Your task to perform on an android device: turn on data saver in the chrome app Image 0: 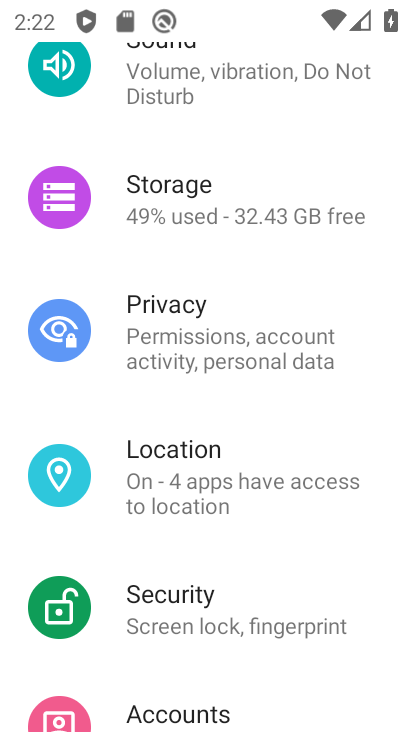
Step 0: drag from (257, 613) to (133, 209)
Your task to perform on an android device: turn on data saver in the chrome app Image 1: 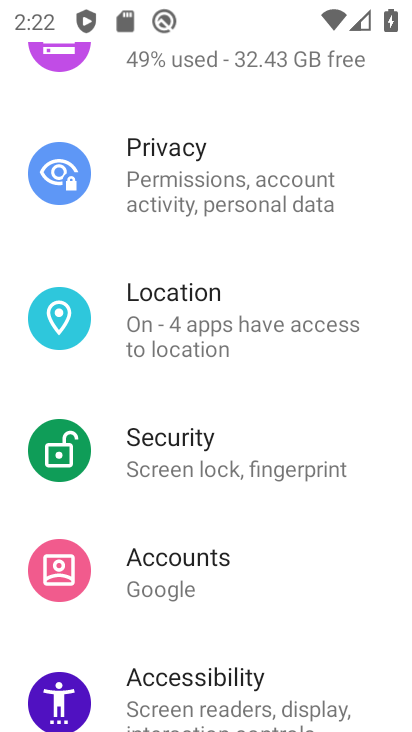
Step 1: drag from (228, 686) to (210, 185)
Your task to perform on an android device: turn on data saver in the chrome app Image 2: 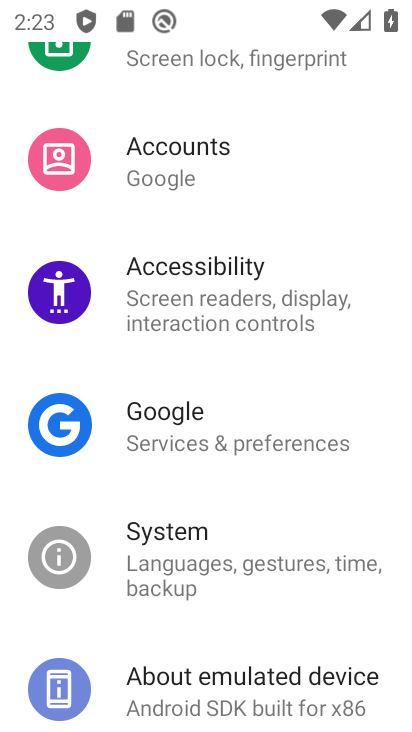
Step 2: drag from (248, 641) to (172, 152)
Your task to perform on an android device: turn on data saver in the chrome app Image 3: 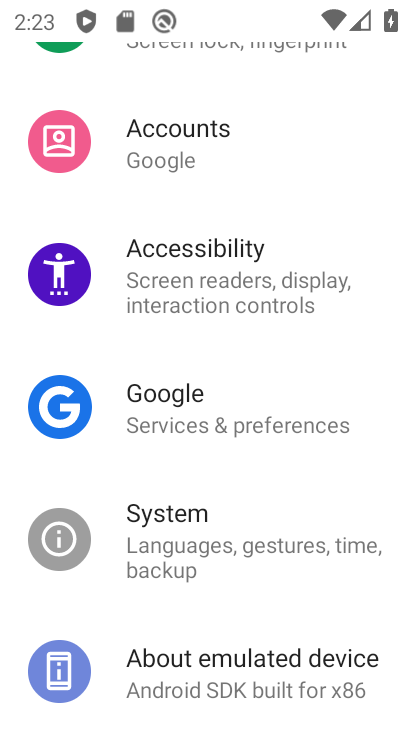
Step 3: drag from (320, 88) to (190, 699)
Your task to perform on an android device: turn on data saver in the chrome app Image 4: 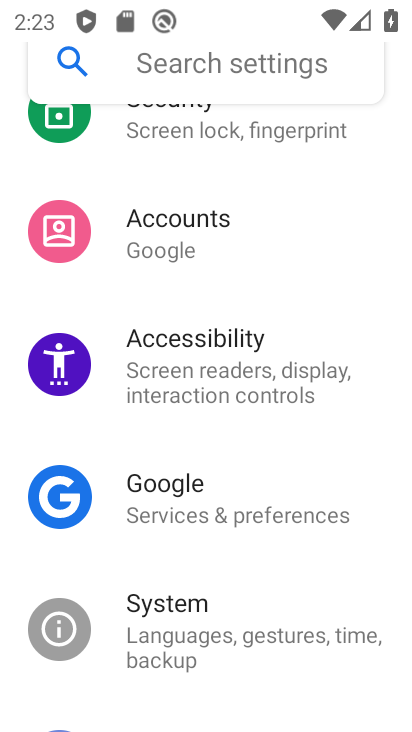
Step 4: drag from (303, 191) to (281, 691)
Your task to perform on an android device: turn on data saver in the chrome app Image 5: 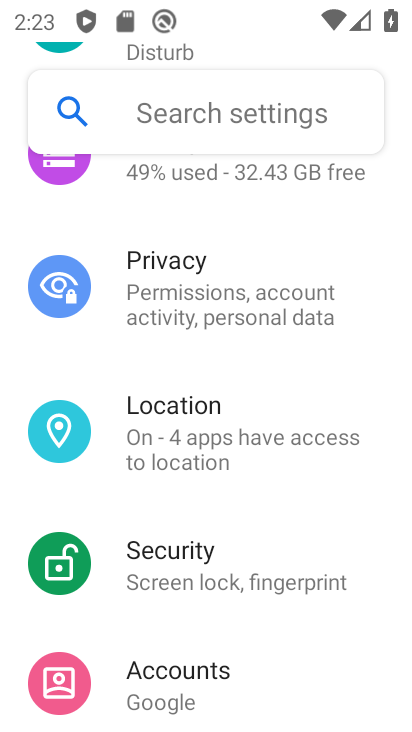
Step 5: drag from (334, 193) to (268, 686)
Your task to perform on an android device: turn on data saver in the chrome app Image 6: 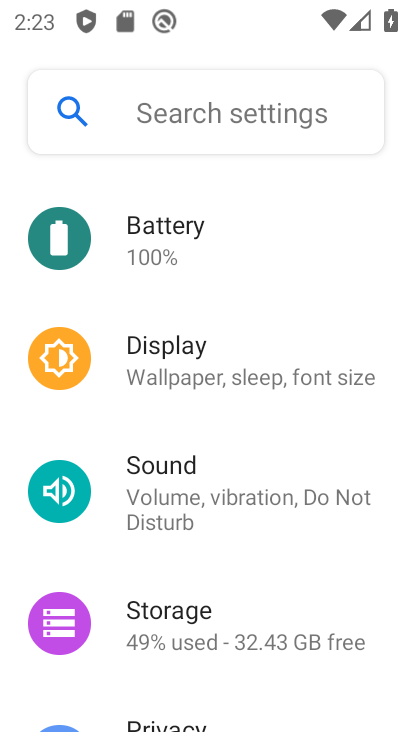
Step 6: drag from (345, 244) to (307, 670)
Your task to perform on an android device: turn on data saver in the chrome app Image 7: 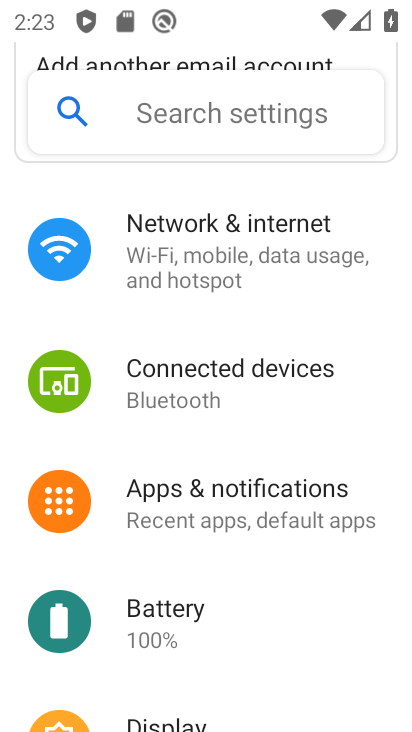
Step 7: press home button
Your task to perform on an android device: turn on data saver in the chrome app Image 8: 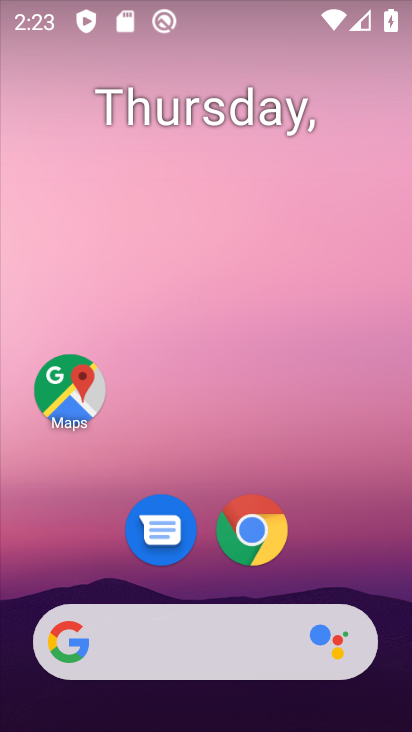
Step 8: drag from (173, 720) to (288, 37)
Your task to perform on an android device: turn on data saver in the chrome app Image 9: 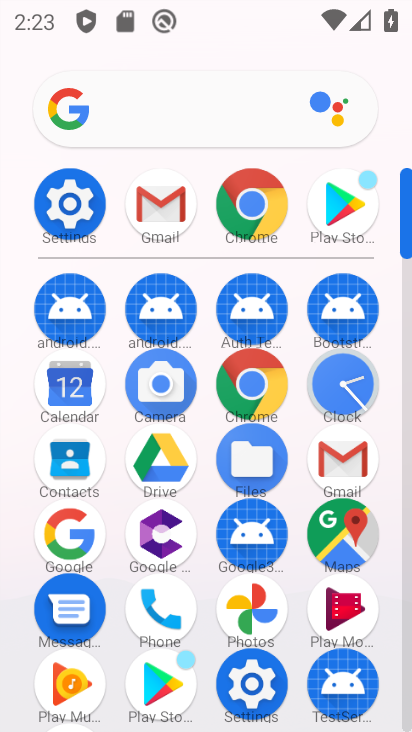
Step 9: click (260, 195)
Your task to perform on an android device: turn on data saver in the chrome app Image 10: 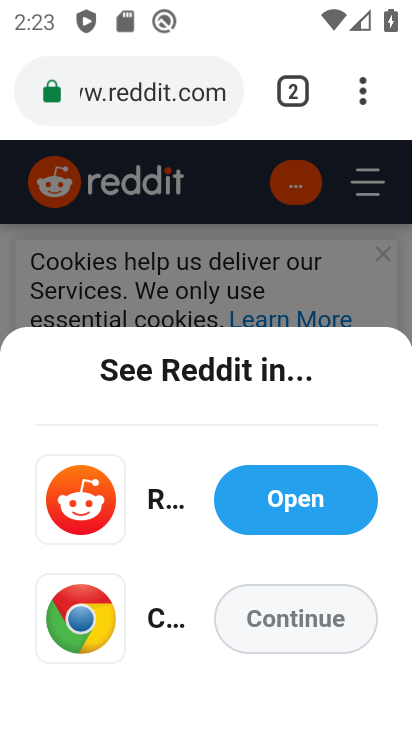
Step 10: click (369, 90)
Your task to perform on an android device: turn on data saver in the chrome app Image 11: 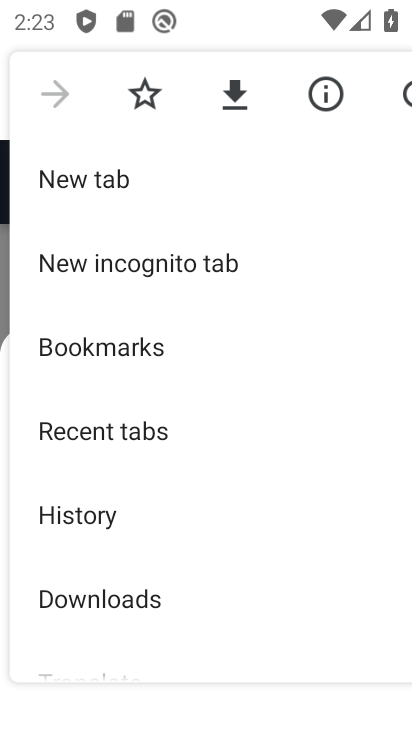
Step 11: drag from (204, 601) to (20, 101)
Your task to perform on an android device: turn on data saver in the chrome app Image 12: 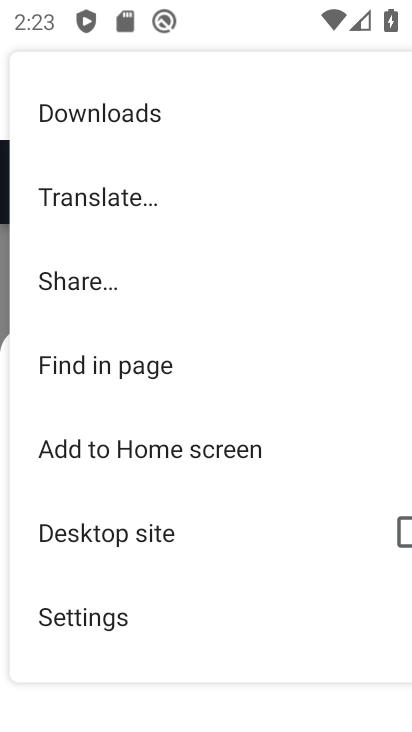
Step 12: click (111, 620)
Your task to perform on an android device: turn on data saver in the chrome app Image 13: 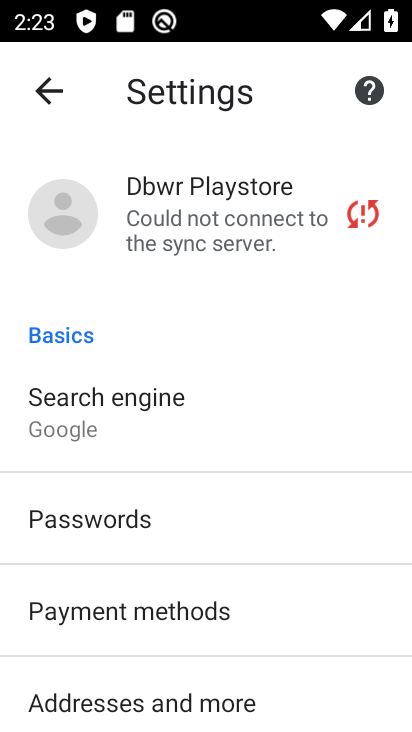
Step 13: drag from (287, 633) to (259, 51)
Your task to perform on an android device: turn on data saver in the chrome app Image 14: 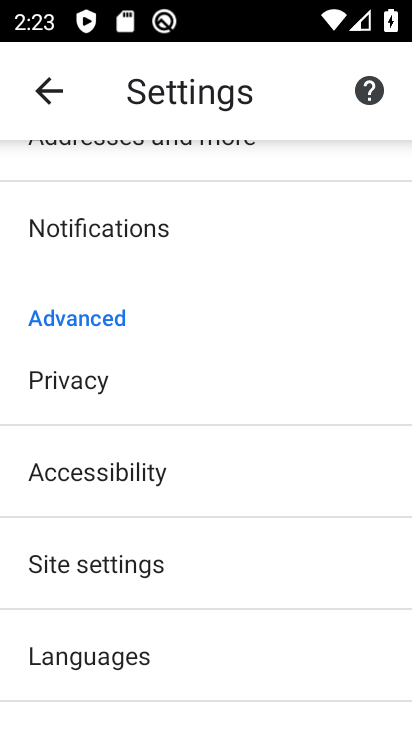
Step 14: drag from (254, 648) to (221, 16)
Your task to perform on an android device: turn on data saver in the chrome app Image 15: 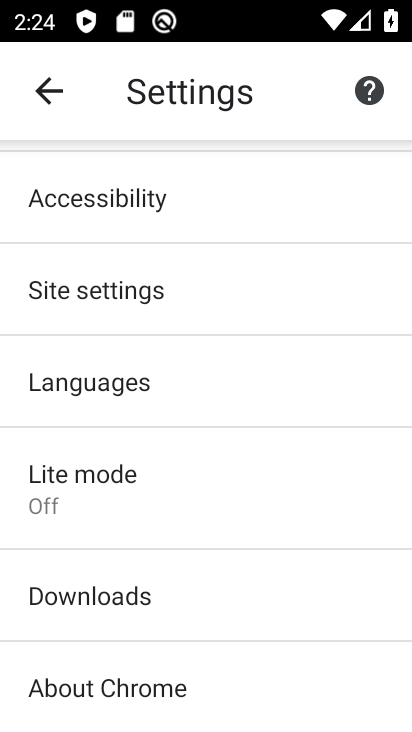
Step 15: click (102, 472)
Your task to perform on an android device: turn on data saver in the chrome app Image 16: 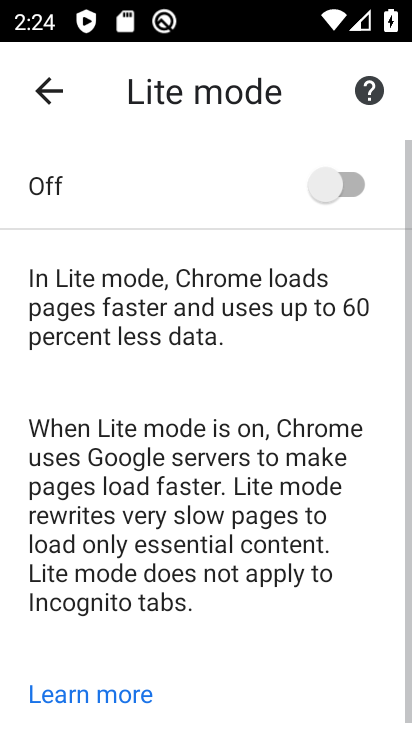
Step 16: click (337, 186)
Your task to perform on an android device: turn on data saver in the chrome app Image 17: 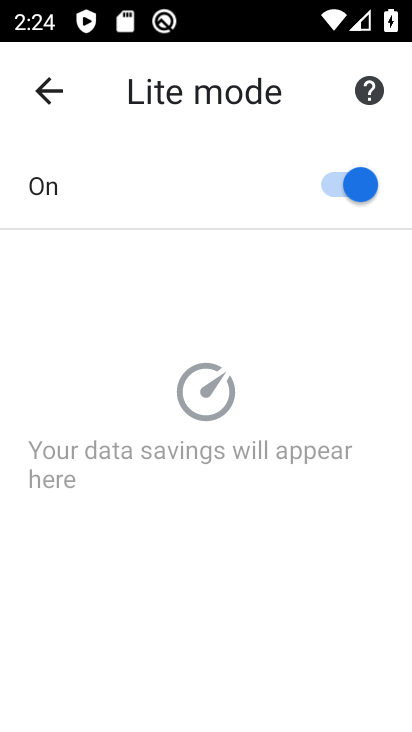
Step 17: task complete